Your task to perform on an android device: Go to network settings Image 0: 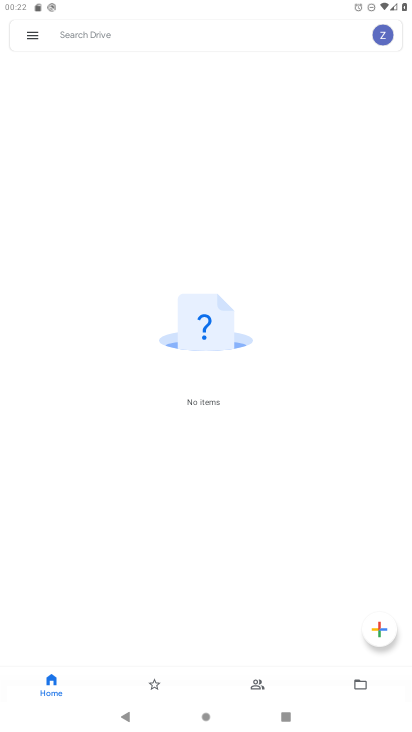
Step 0: press home button
Your task to perform on an android device: Go to network settings Image 1: 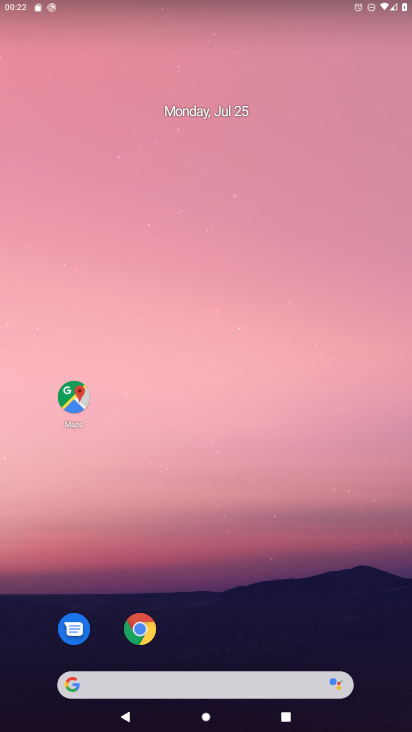
Step 1: drag from (181, 649) to (181, 473)
Your task to perform on an android device: Go to network settings Image 2: 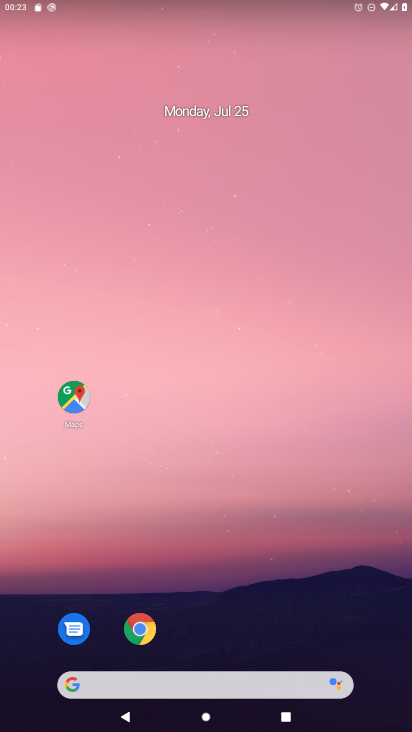
Step 2: drag from (205, 620) to (247, 239)
Your task to perform on an android device: Go to network settings Image 3: 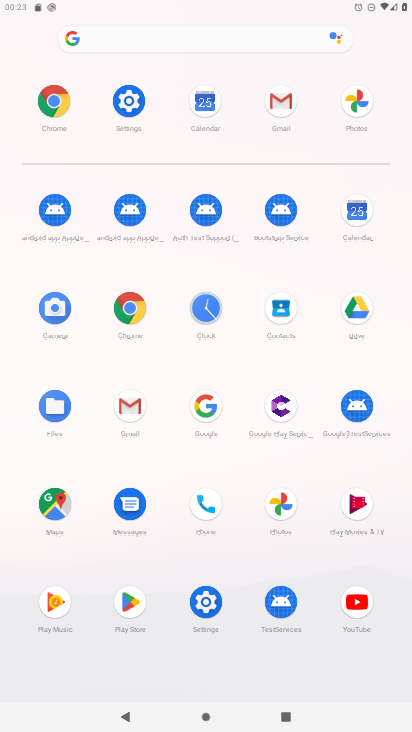
Step 3: click (200, 598)
Your task to perform on an android device: Go to network settings Image 4: 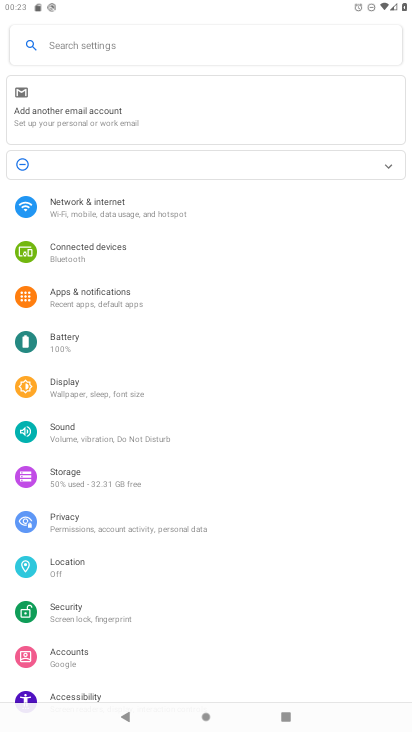
Step 4: click (101, 205)
Your task to perform on an android device: Go to network settings Image 5: 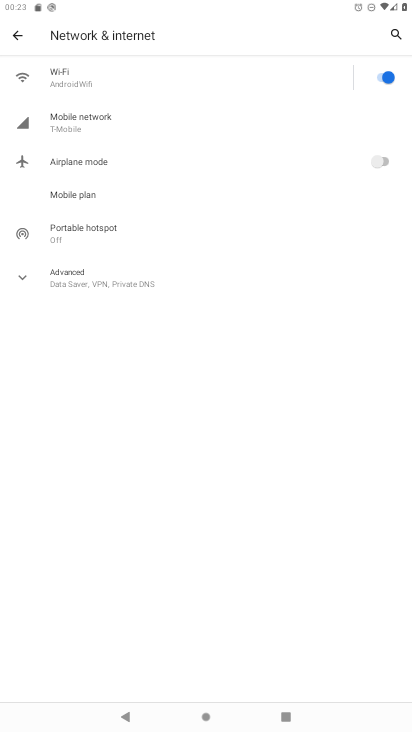
Step 5: click (239, 295)
Your task to perform on an android device: Go to network settings Image 6: 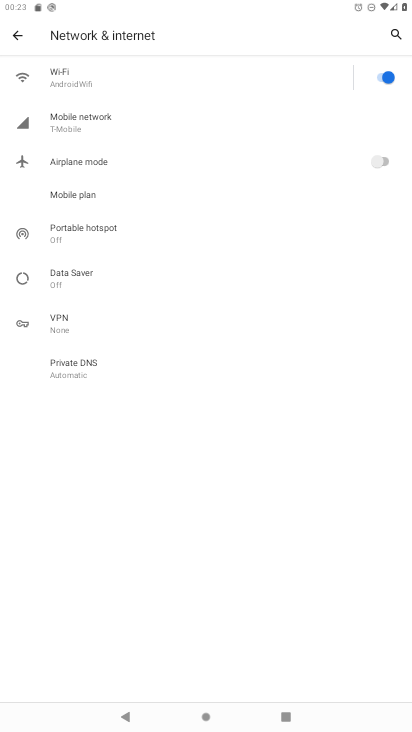
Step 6: task complete